Your task to perform on an android device: Open Amazon Image 0: 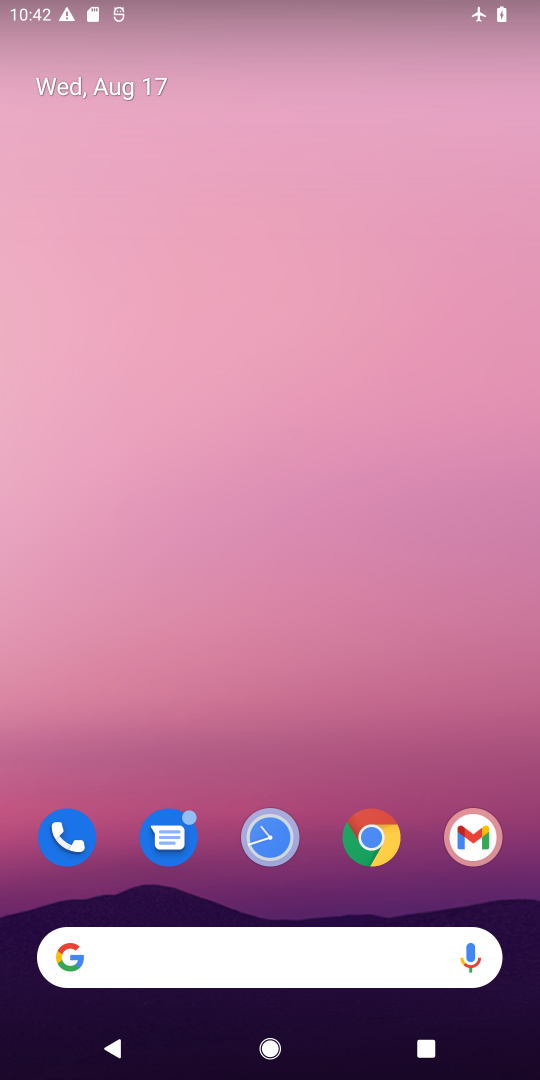
Step 0: click (372, 840)
Your task to perform on an android device: Open Amazon Image 1: 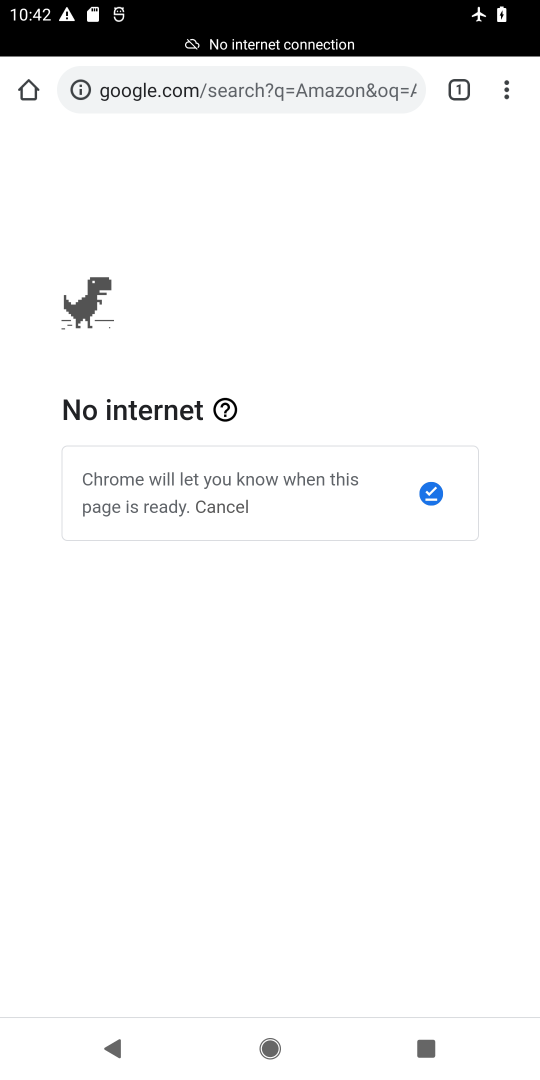
Step 1: click (364, 89)
Your task to perform on an android device: Open Amazon Image 2: 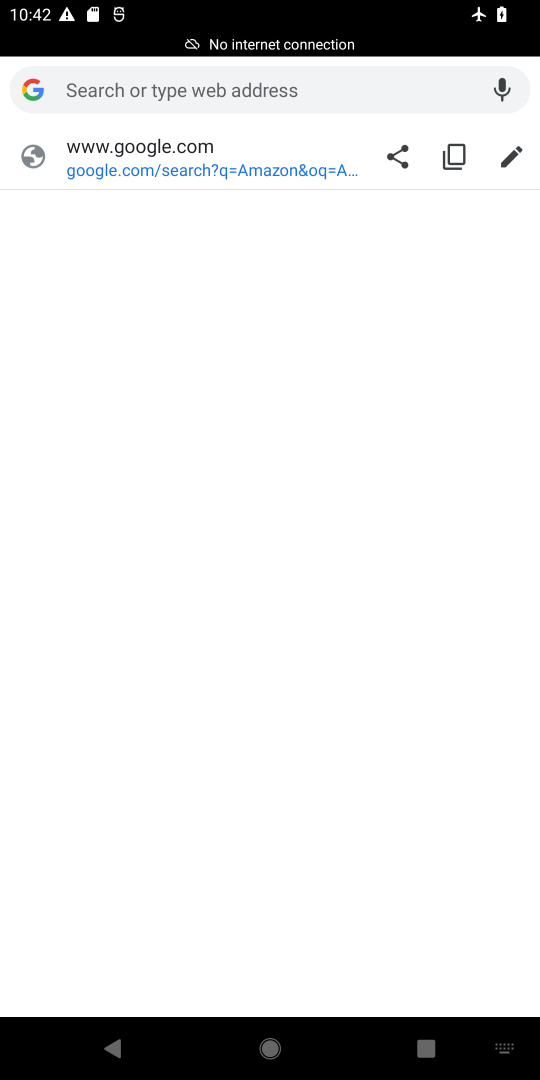
Step 2: type "Amazon"
Your task to perform on an android device: Open Amazon Image 3: 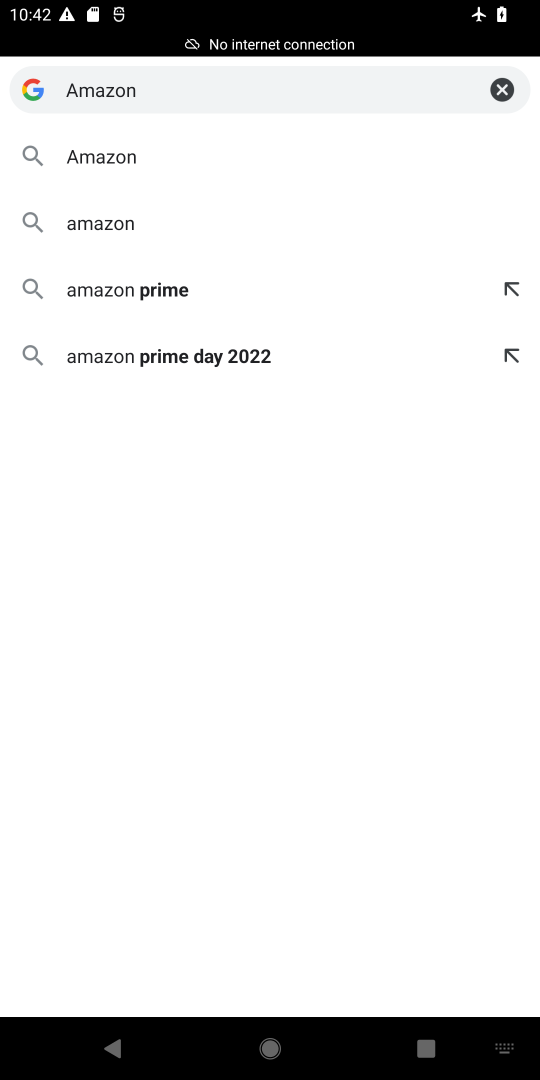
Step 3: click (137, 177)
Your task to perform on an android device: Open Amazon Image 4: 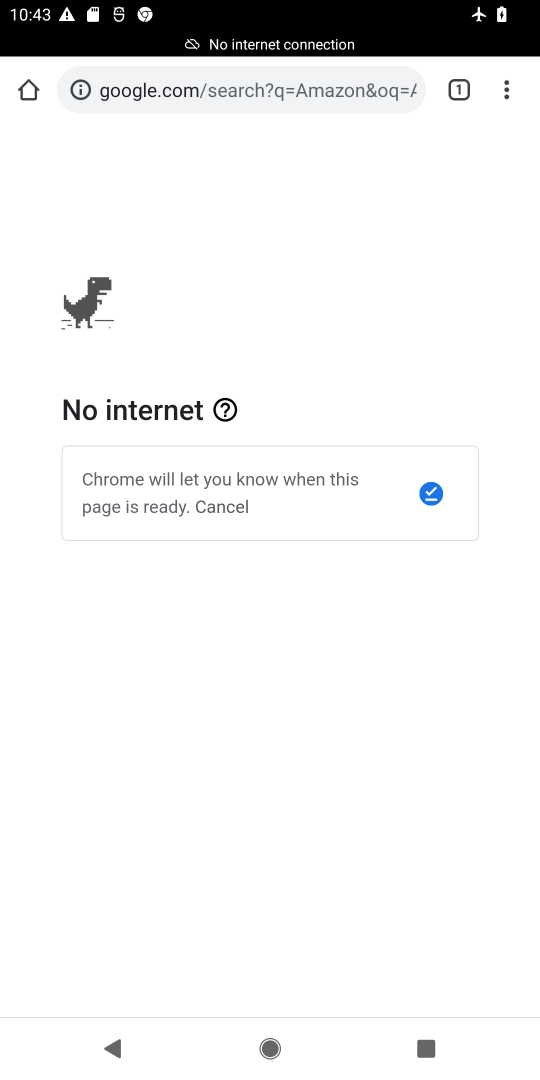
Step 4: task complete